Your task to perform on an android device: Go to battery settings Image 0: 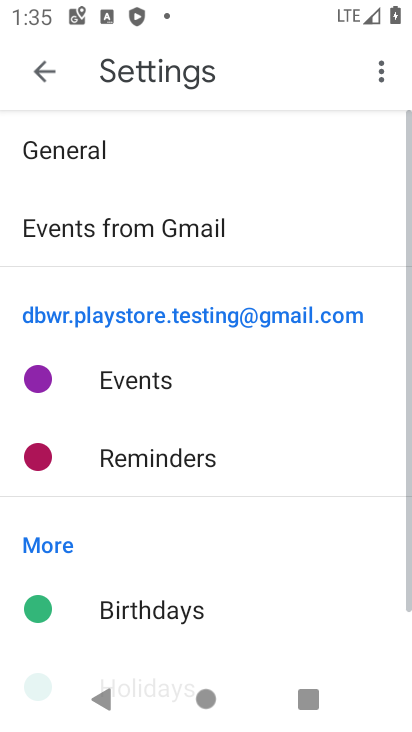
Step 0: press home button
Your task to perform on an android device: Go to battery settings Image 1: 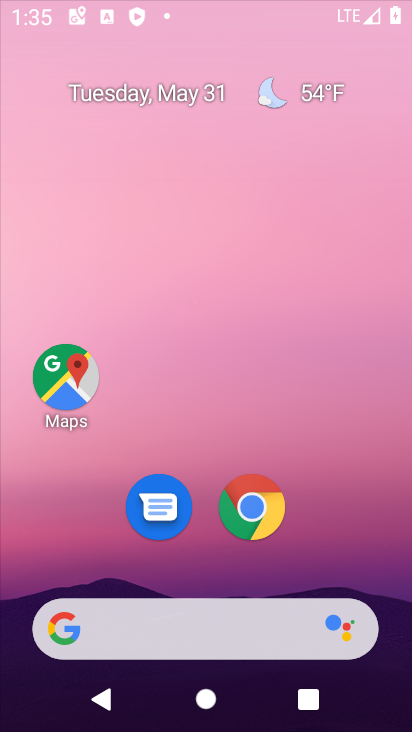
Step 1: drag from (398, 686) to (217, 25)
Your task to perform on an android device: Go to battery settings Image 2: 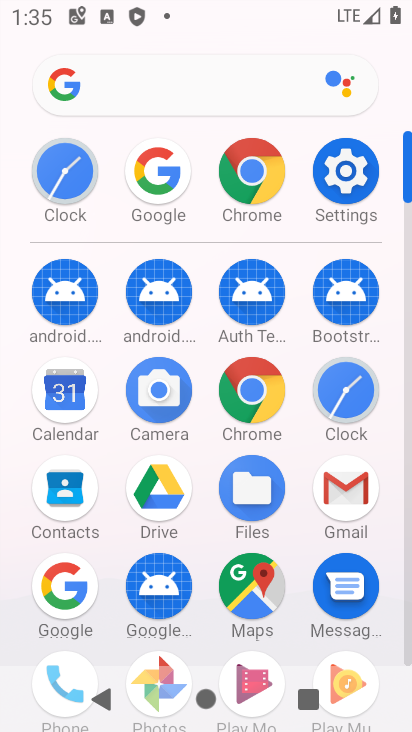
Step 2: click (367, 184)
Your task to perform on an android device: Go to battery settings Image 3: 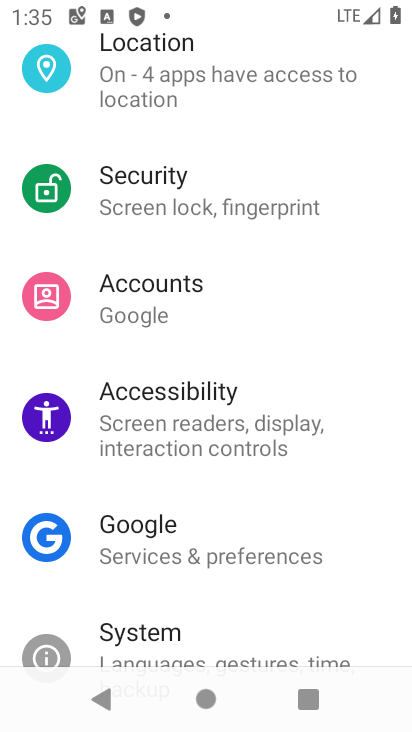
Step 3: drag from (247, 141) to (279, 599)
Your task to perform on an android device: Go to battery settings Image 4: 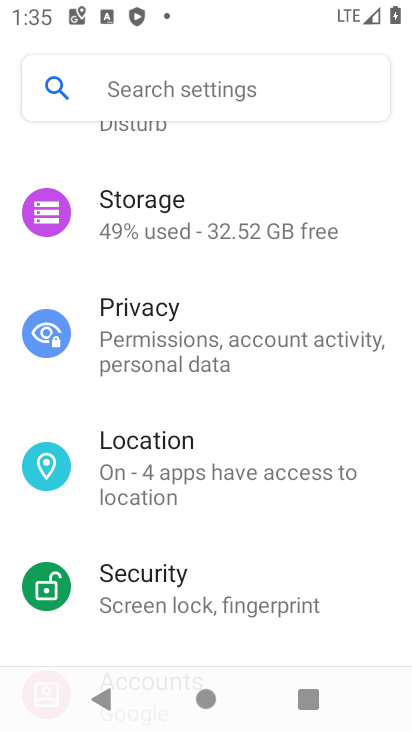
Step 4: drag from (211, 227) to (284, 626)
Your task to perform on an android device: Go to battery settings Image 5: 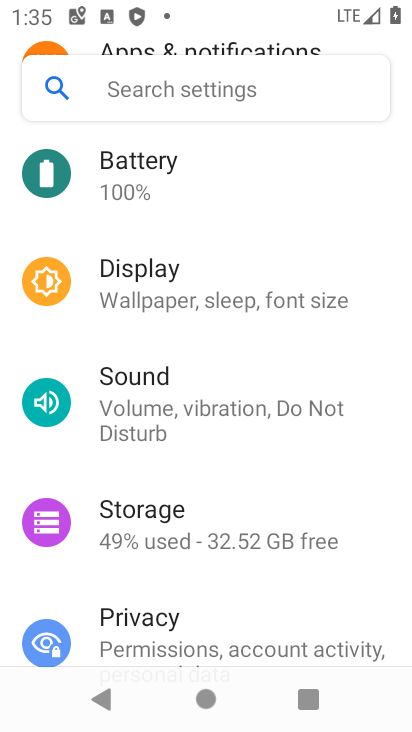
Step 5: click (202, 186)
Your task to perform on an android device: Go to battery settings Image 6: 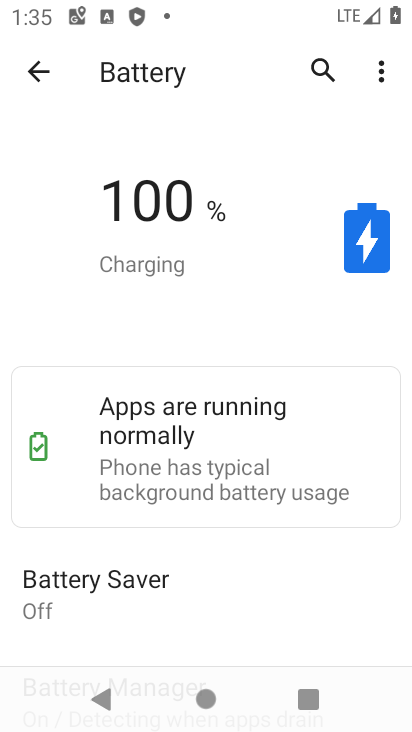
Step 6: task complete